Your task to perform on an android device: turn on improve location accuracy Image 0: 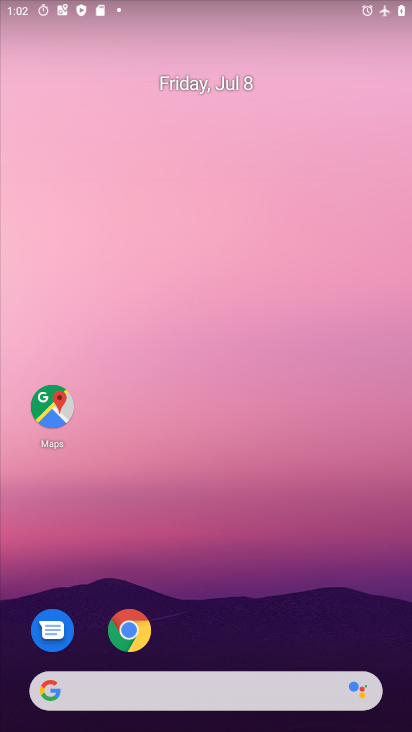
Step 0: drag from (216, 643) to (267, 232)
Your task to perform on an android device: turn on improve location accuracy Image 1: 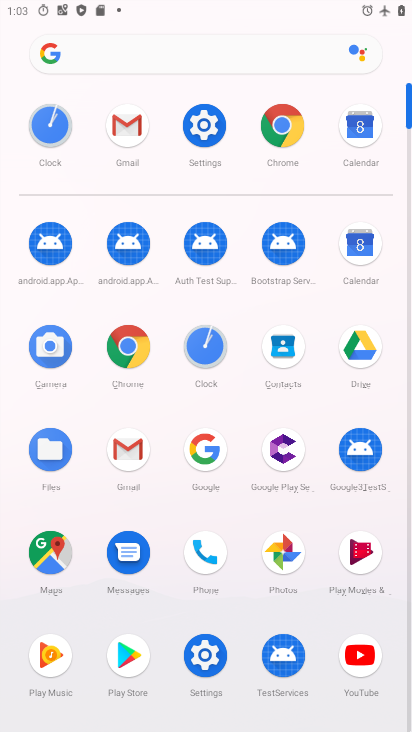
Step 1: click (194, 128)
Your task to perform on an android device: turn on improve location accuracy Image 2: 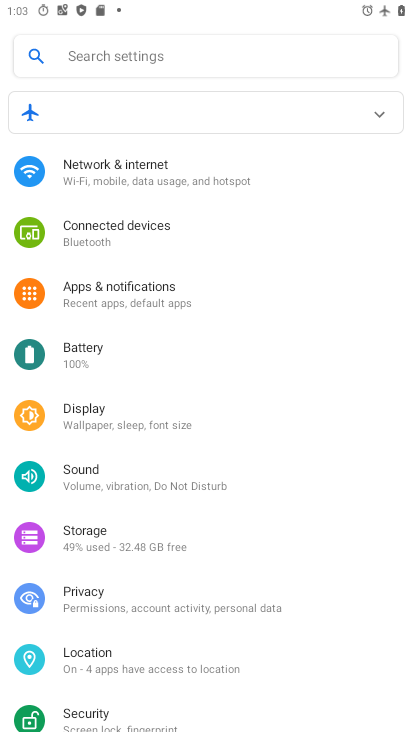
Step 2: click (120, 658)
Your task to perform on an android device: turn on improve location accuracy Image 3: 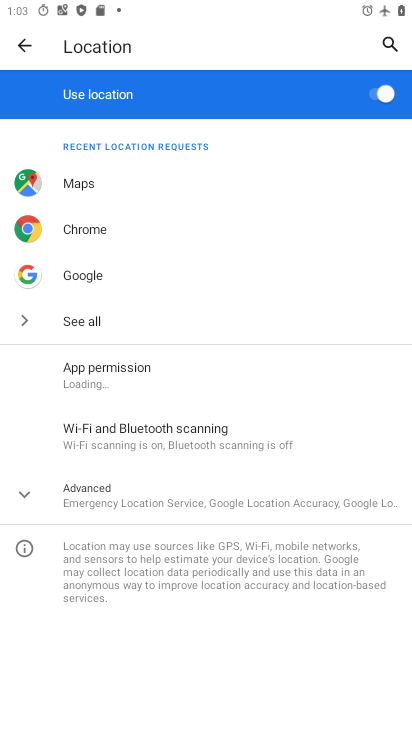
Step 3: click (109, 495)
Your task to perform on an android device: turn on improve location accuracy Image 4: 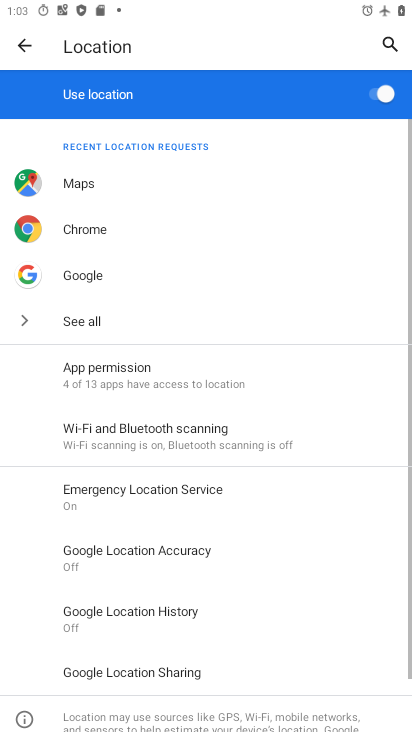
Step 4: click (178, 561)
Your task to perform on an android device: turn on improve location accuracy Image 5: 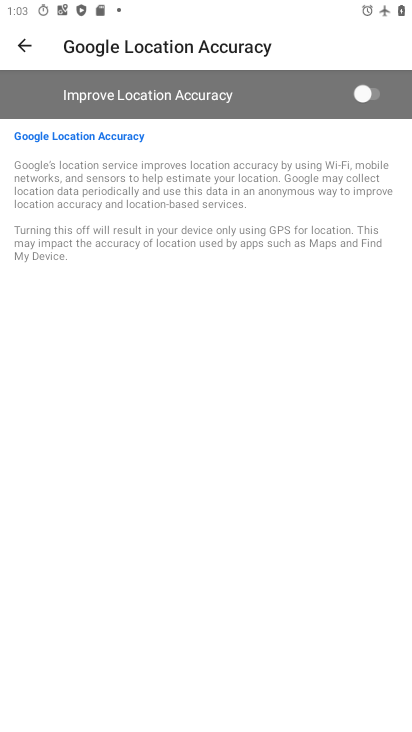
Step 5: click (383, 97)
Your task to perform on an android device: turn on improve location accuracy Image 6: 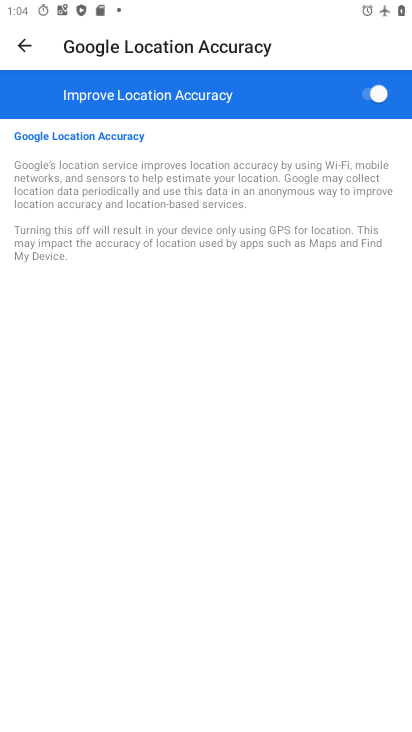
Step 6: task complete